Your task to perform on an android device: Search for razer blade on walmart, select the first entry, and add it to the cart. Image 0: 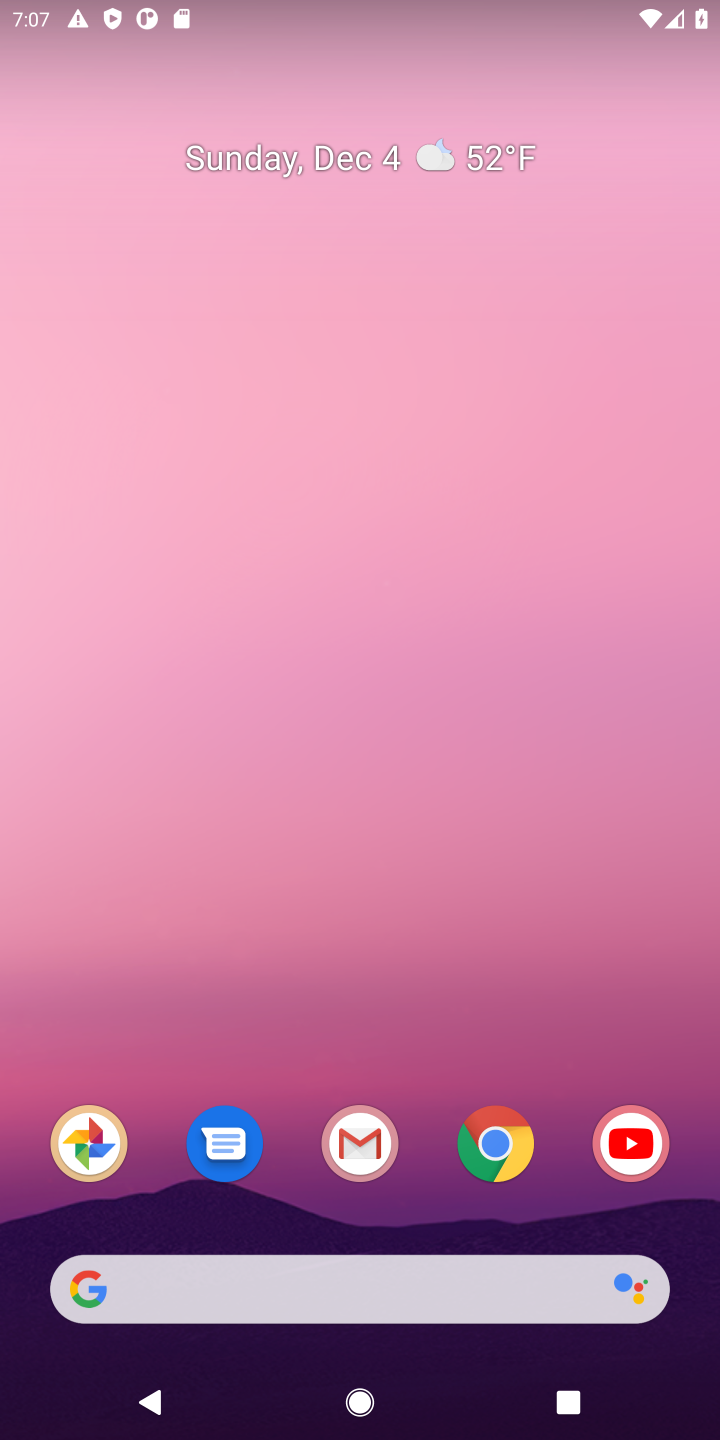
Step 0: click (503, 1138)
Your task to perform on an android device: Search for razer blade on walmart, select the first entry, and add it to the cart. Image 1: 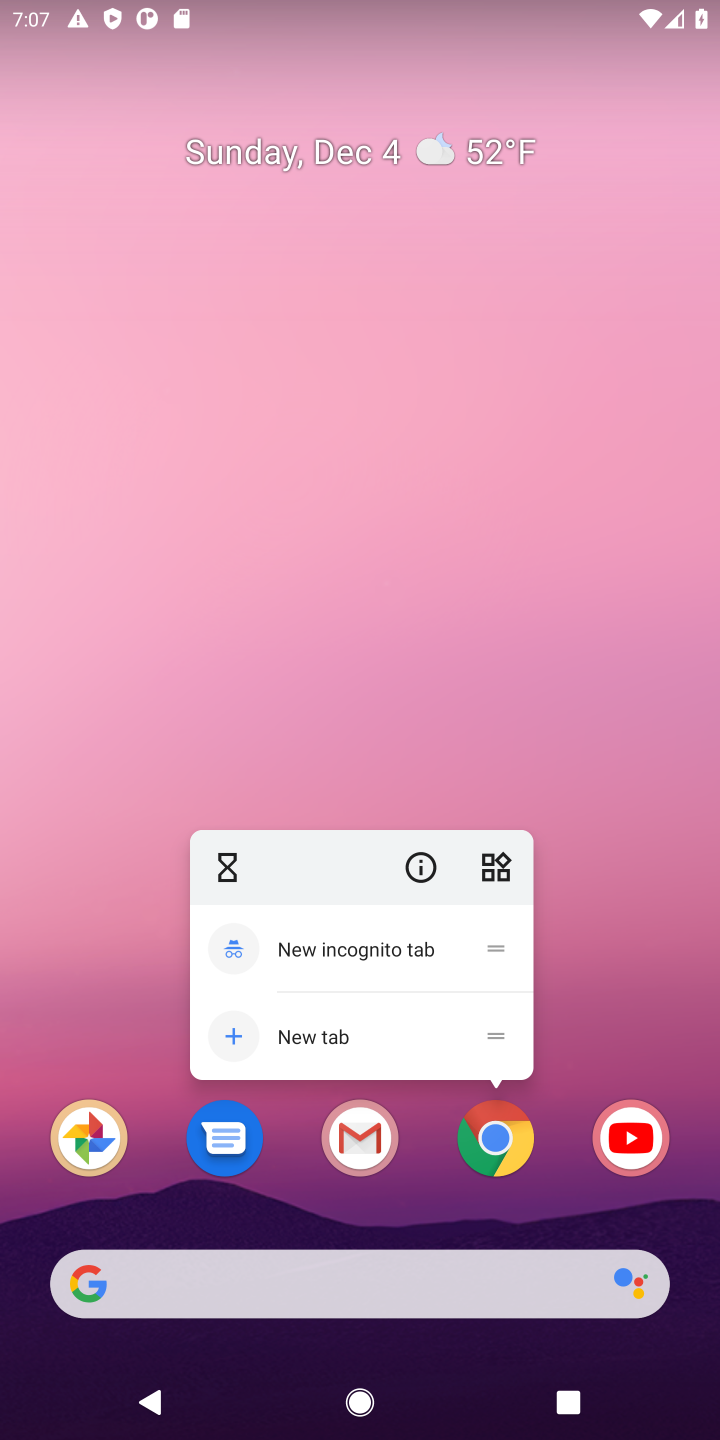
Step 1: click (510, 1143)
Your task to perform on an android device: Search for razer blade on walmart, select the first entry, and add it to the cart. Image 2: 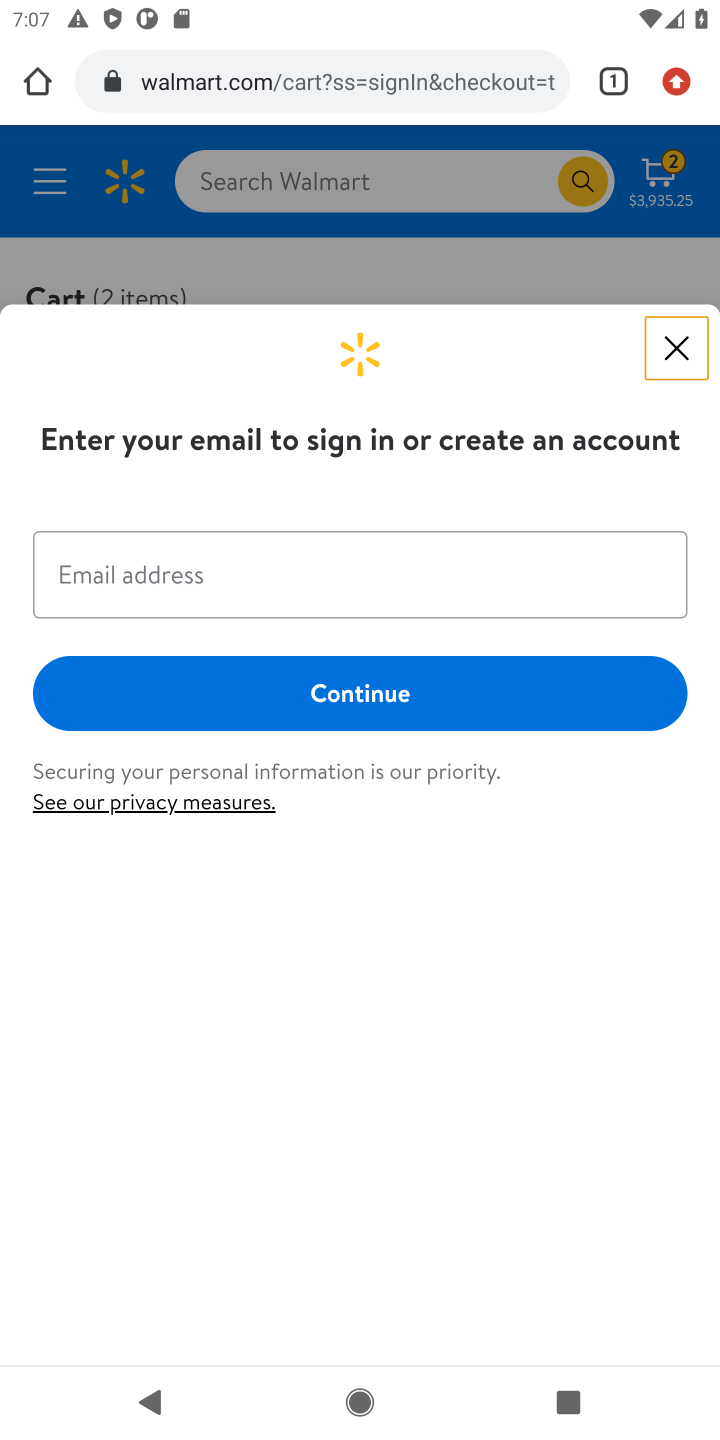
Step 2: click (674, 355)
Your task to perform on an android device: Search for razer blade on walmart, select the first entry, and add it to the cart. Image 3: 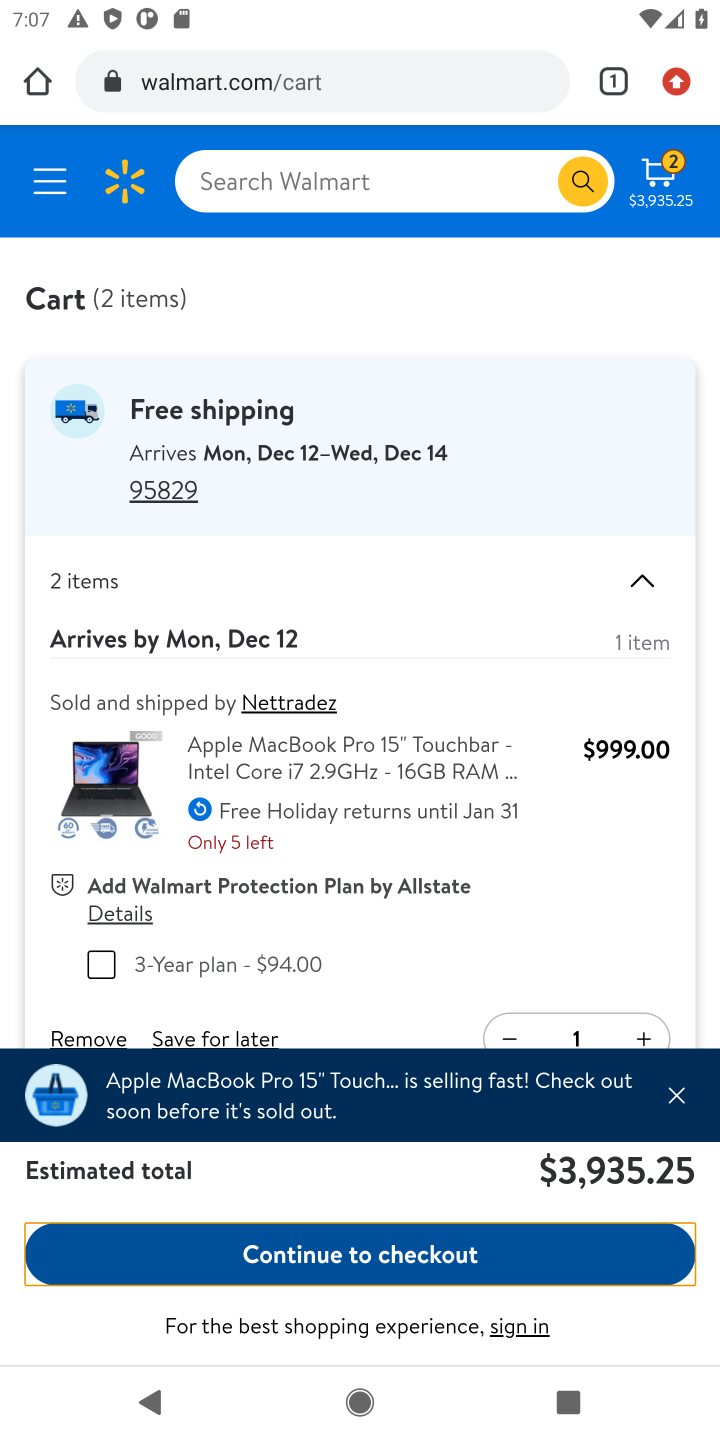
Step 3: click (462, 189)
Your task to perform on an android device: Search for razer blade on walmart, select the first entry, and add it to the cart. Image 4: 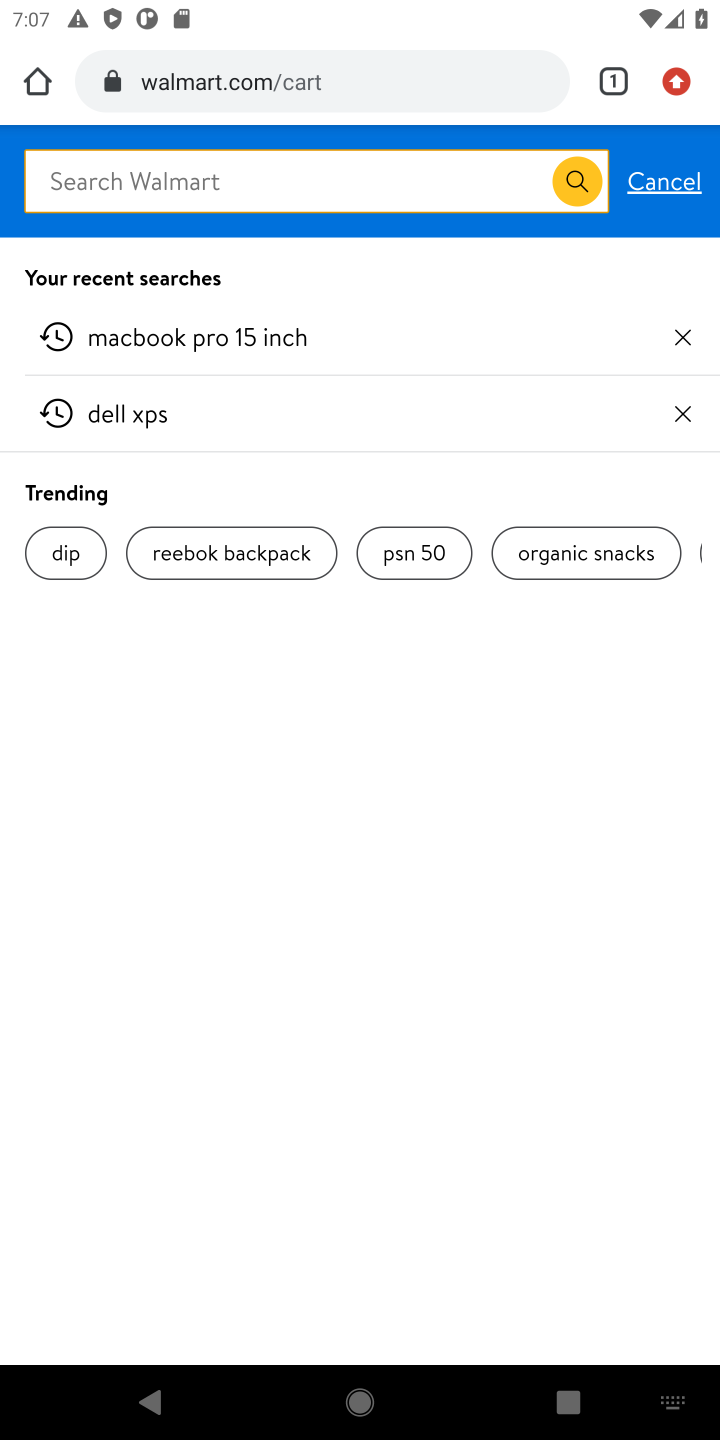
Step 4: press enter
Your task to perform on an android device: Search for razer blade on walmart, select the first entry, and add it to the cart. Image 5: 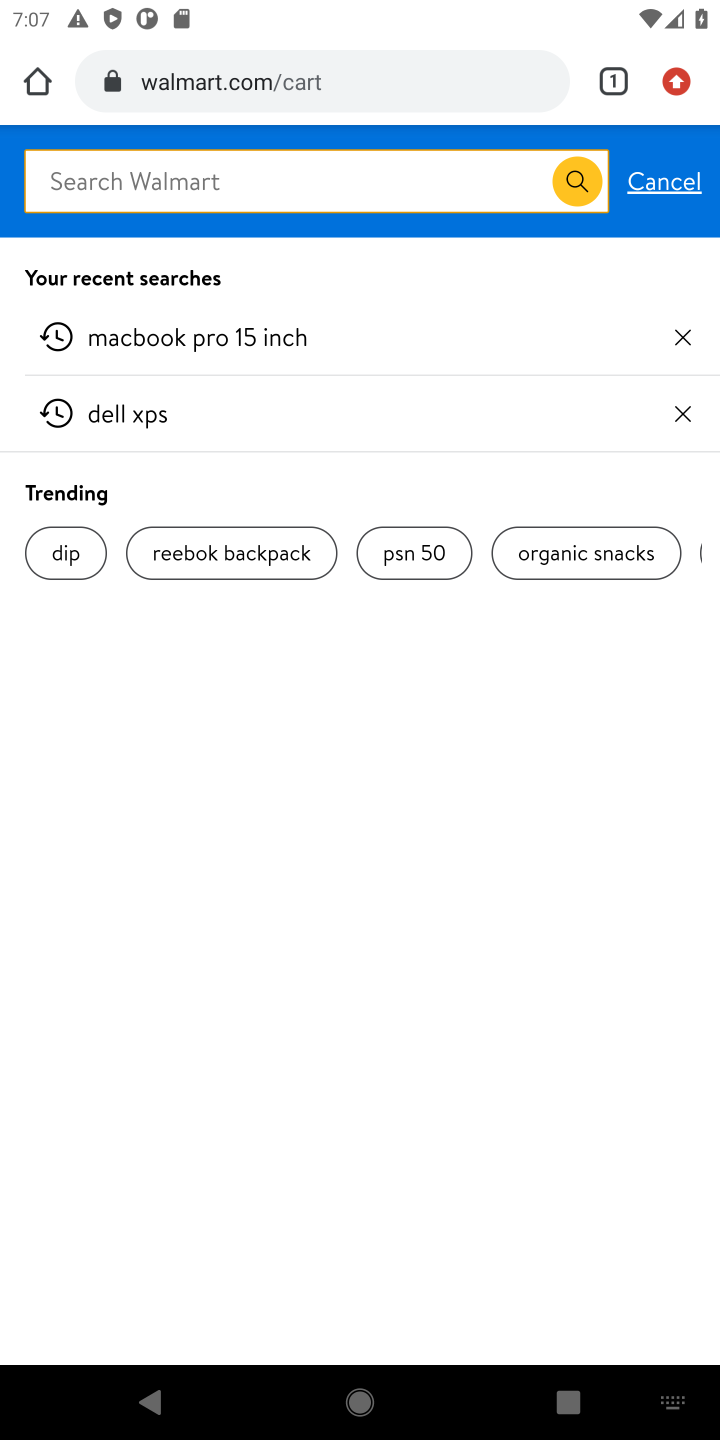
Step 5: type "razer blade"
Your task to perform on an android device: Search for razer blade on walmart, select the first entry, and add it to the cart. Image 6: 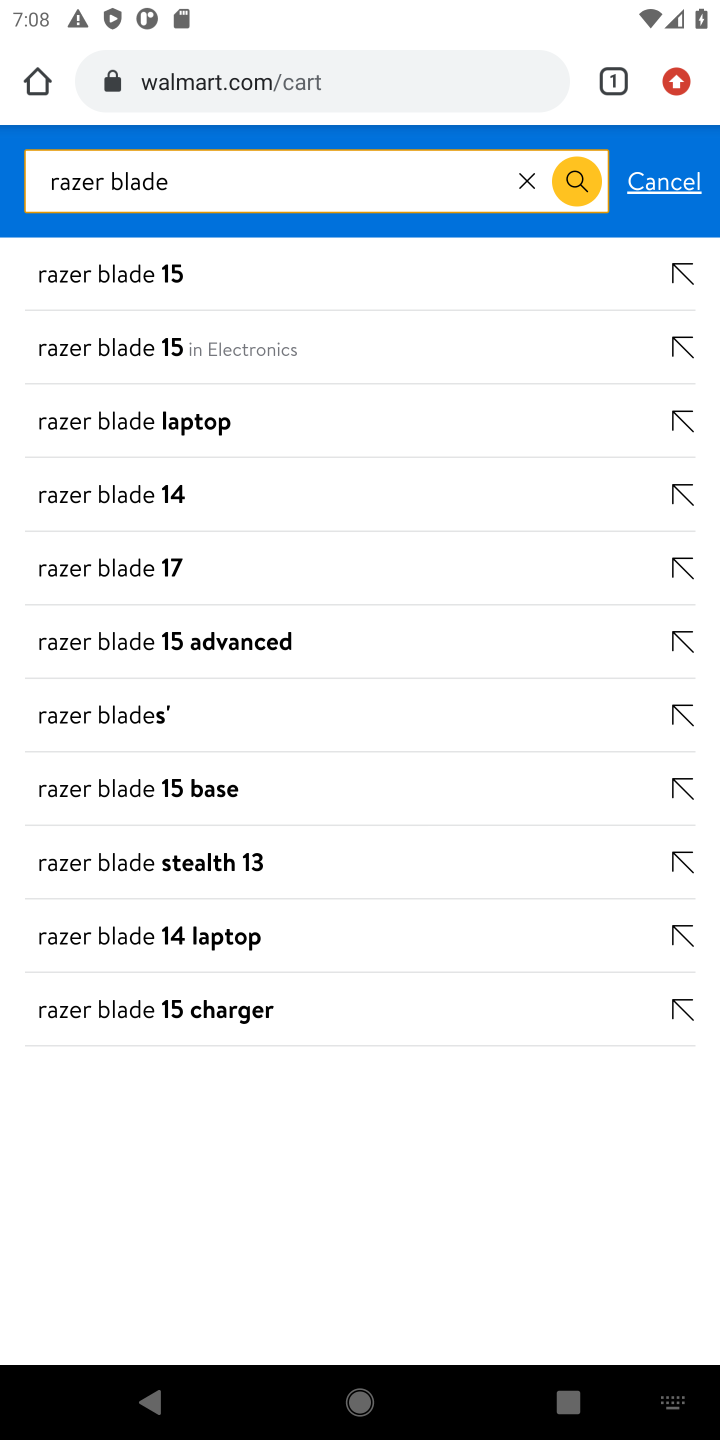
Step 6: click (578, 178)
Your task to perform on an android device: Search for razer blade on walmart, select the first entry, and add it to the cart. Image 7: 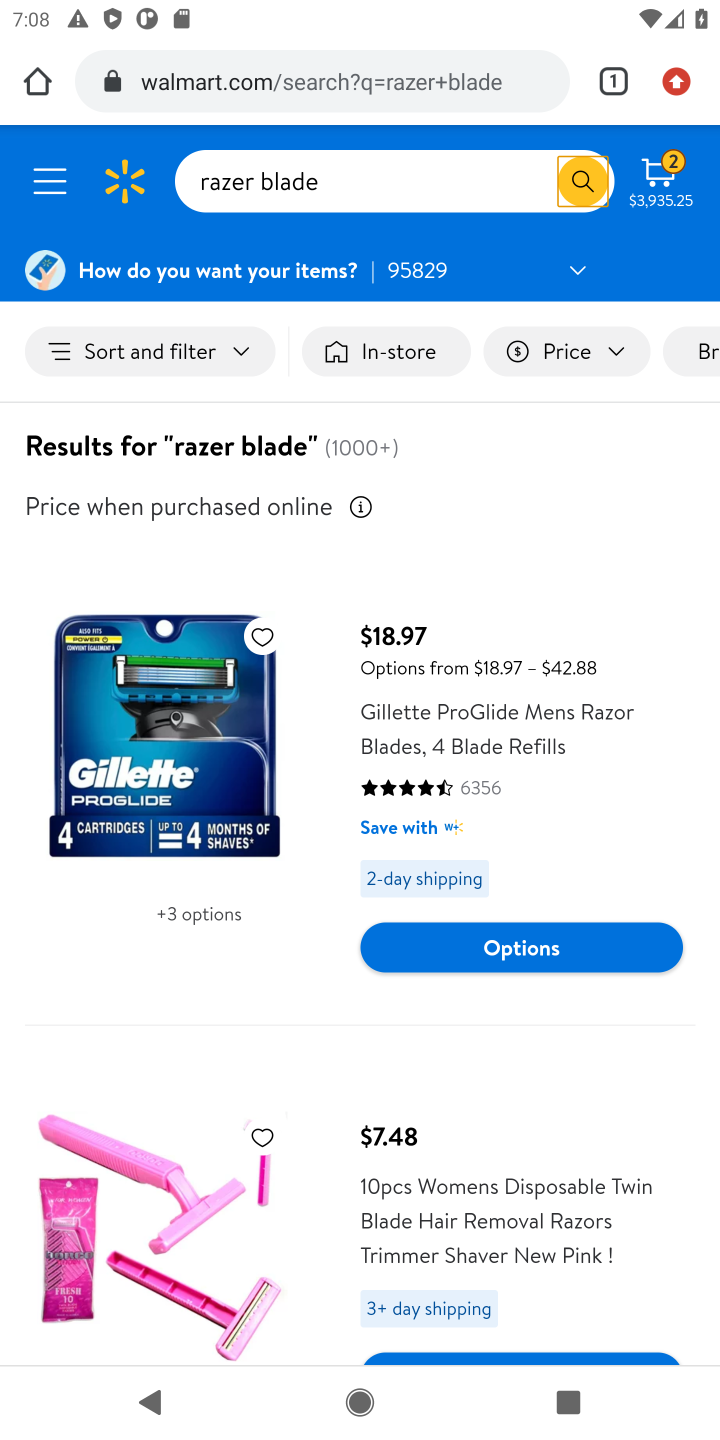
Step 7: task complete